Your task to perform on an android device: Go to Android settings Image 0: 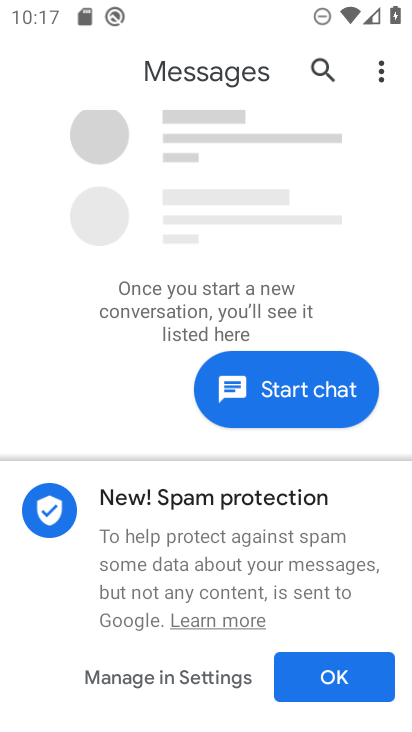
Step 0: press home button
Your task to perform on an android device: Go to Android settings Image 1: 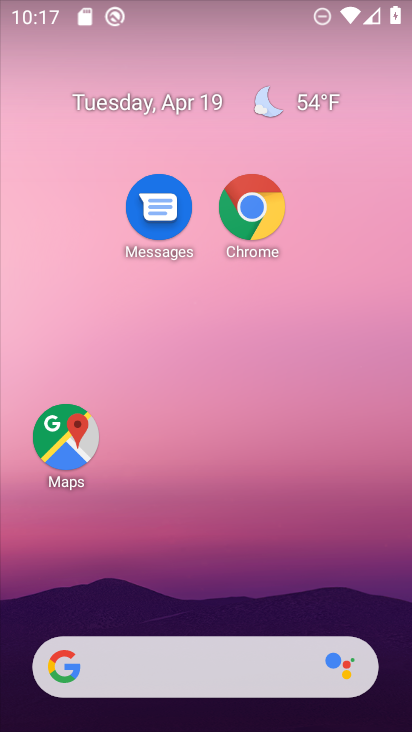
Step 1: drag from (216, 614) to (216, 242)
Your task to perform on an android device: Go to Android settings Image 2: 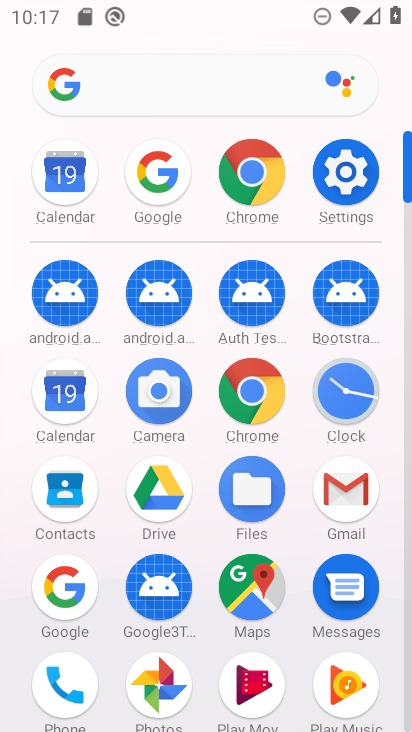
Step 2: click (335, 181)
Your task to perform on an android device: Go to Android settings Image 3: 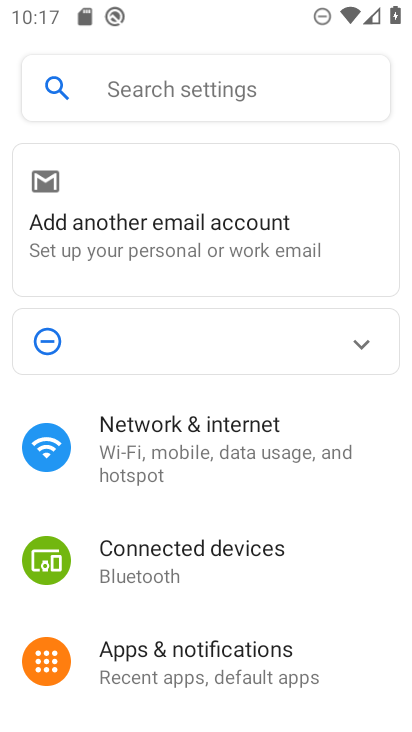
Step 3: click (215, 369)
Your task to perform on an android device: Go to Android settings Image 4: 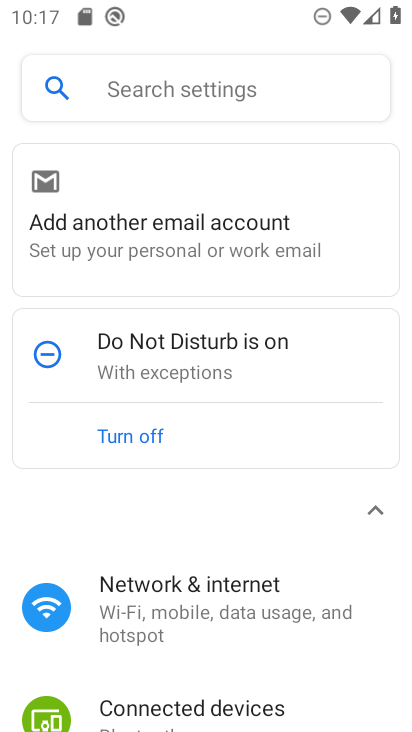
Step 4: task complete